Your task to perform on an android device: Show me popular videos on Youtube Image 0: 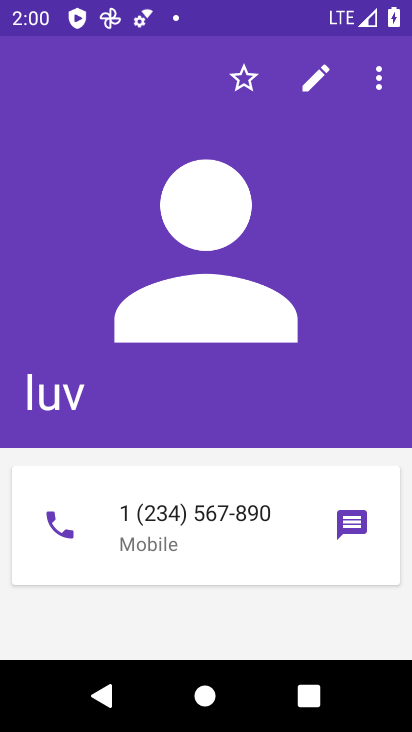
Step 0: press home button
Your task to perform on an android device: Show me popular videos on Youtube Image 1: 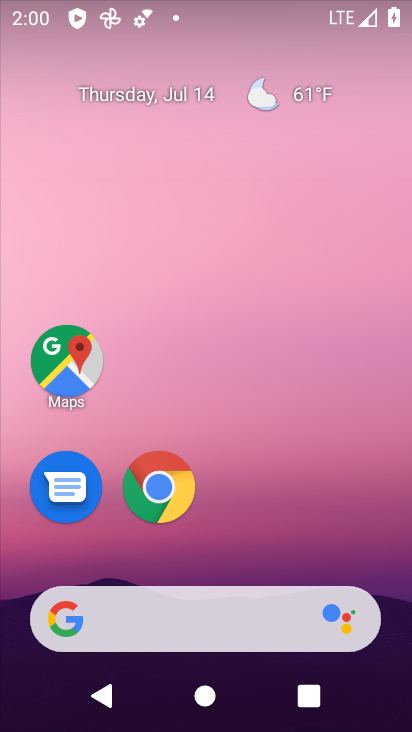
Step 1: drag from (342, 549) to (382, 111)
Your task to perform on an android device: Show me popular videos on Youtube Image 2: 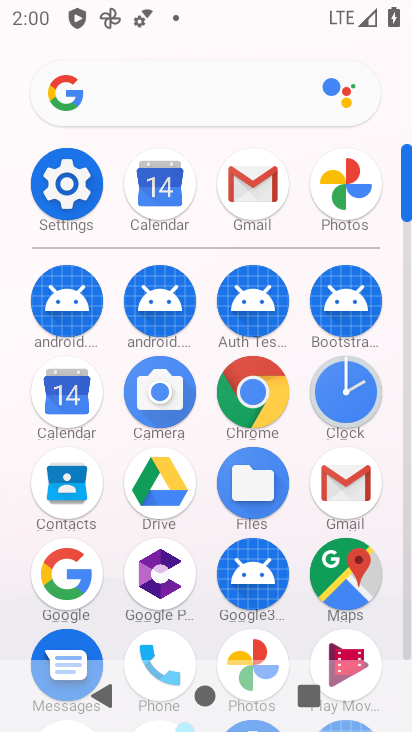
Step 2: drag from (388, 625) to (405, 470)
Your task to perform on an android device: Show me popular videos on Youtube Image 3: 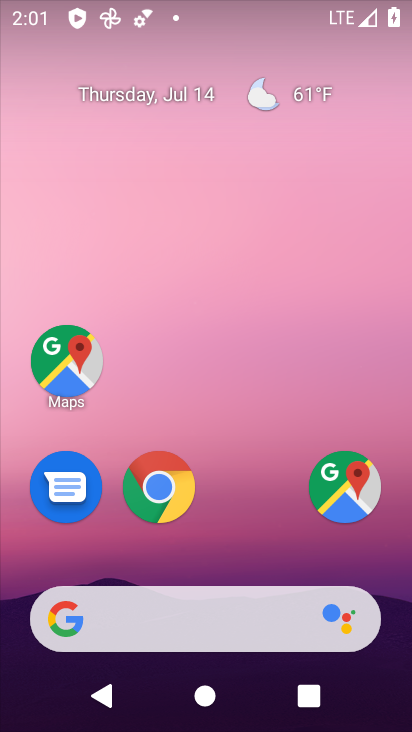
Step 3: drag from (253, 558) to (310, 159)
Your task to perform on an android device: Show me popular videos on Youtube Image 4: 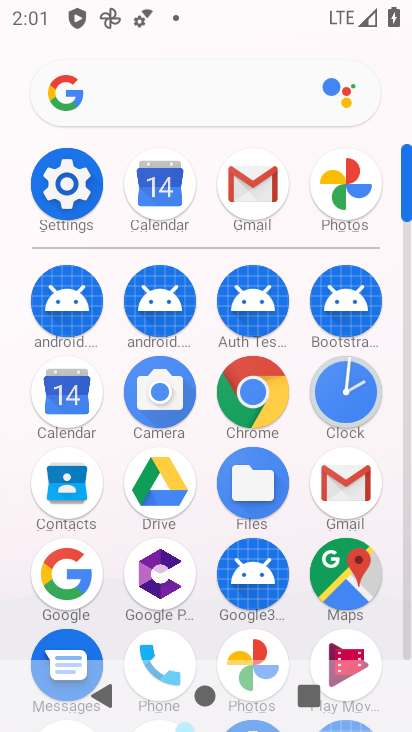
Step 4: drag from (388, 616) to (398, 351)
Your task to perform on an android device: Show me popular videos on Youtube Image 5: 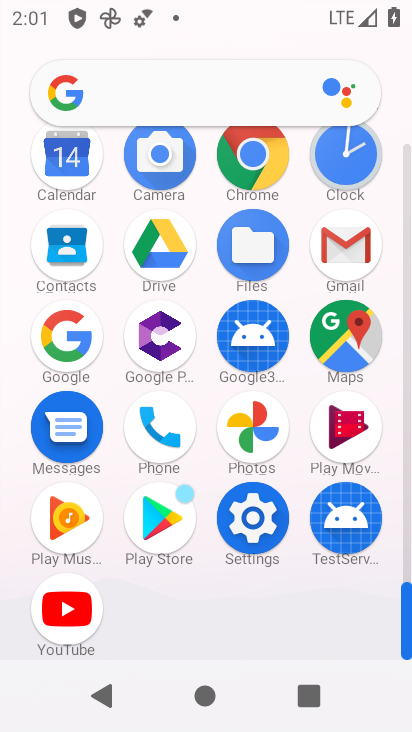
Step 5: click (72, 619)
Your task to perform on an android device: Show me popular videos on Youtube Image 6: 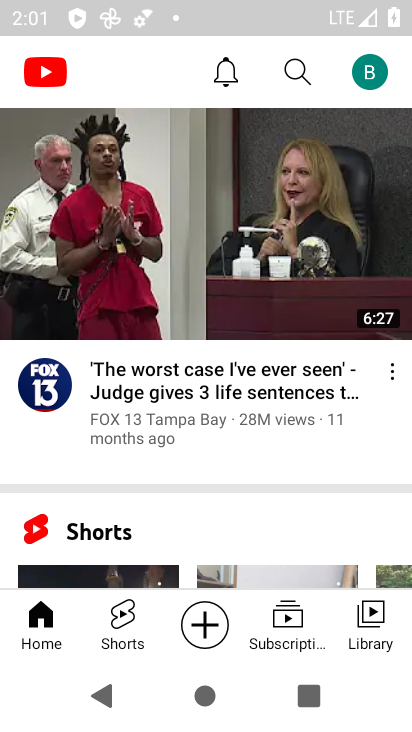
Step 6: task complete